Your task to perform on an android device: Open sound settings Image 0: 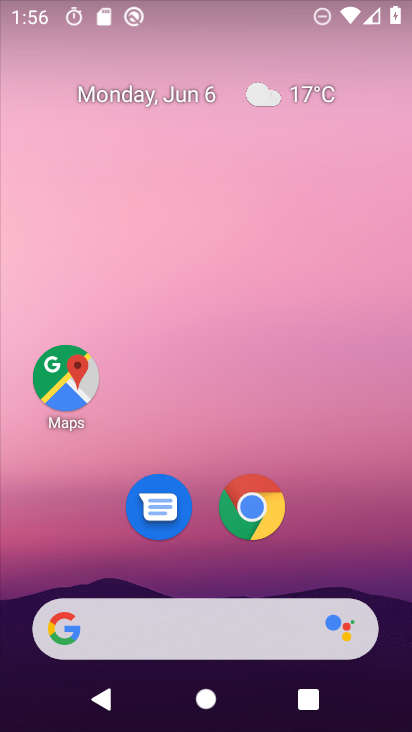
Step 0: drag from (270, 632) to (171, 218)
Your task to perform on an android device: Open sound settings Image 1: 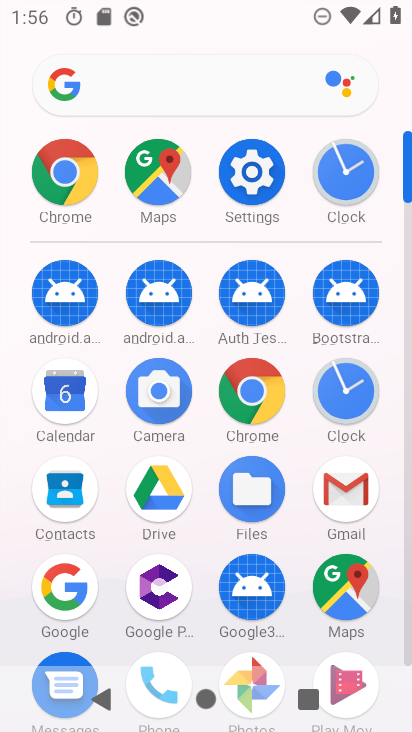
Step 1: click (241, 191)
Your task to perform on an android device: Open sound settings Image 2: 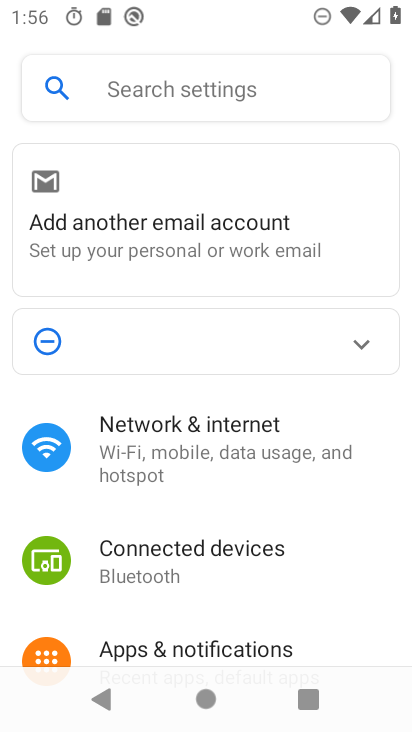
Step 2: click (196, 88)
Your task to perform on an android device: Open sound settings Image 3: 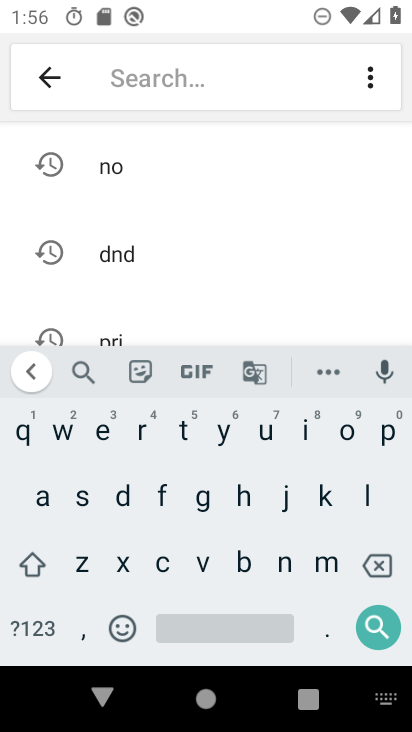
Step 3: click (76, 514)
Your task to perform on an android device: Open sound settings Image 4: 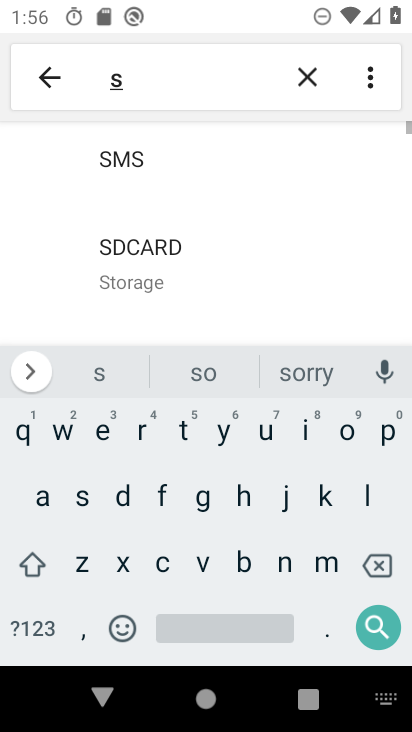
Step 4: click (344, 433)
Your task to perform on an android device: Open sound settings Image 5: 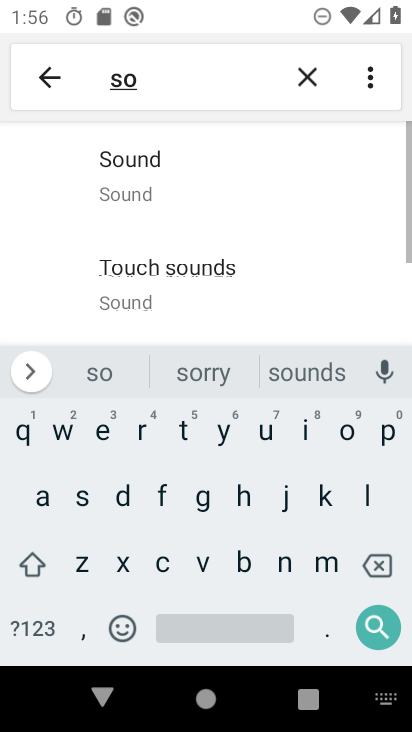
Step 5: click (172, 163)
Your task to perform on an android device: Open sound settings Image 6: 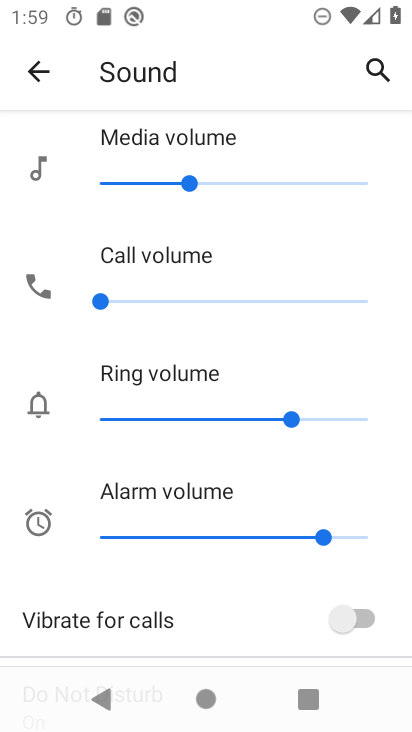
Step 6: task complete